Your task to perform on an android device: open app "Reddit" (install if not already installed) Image 0: 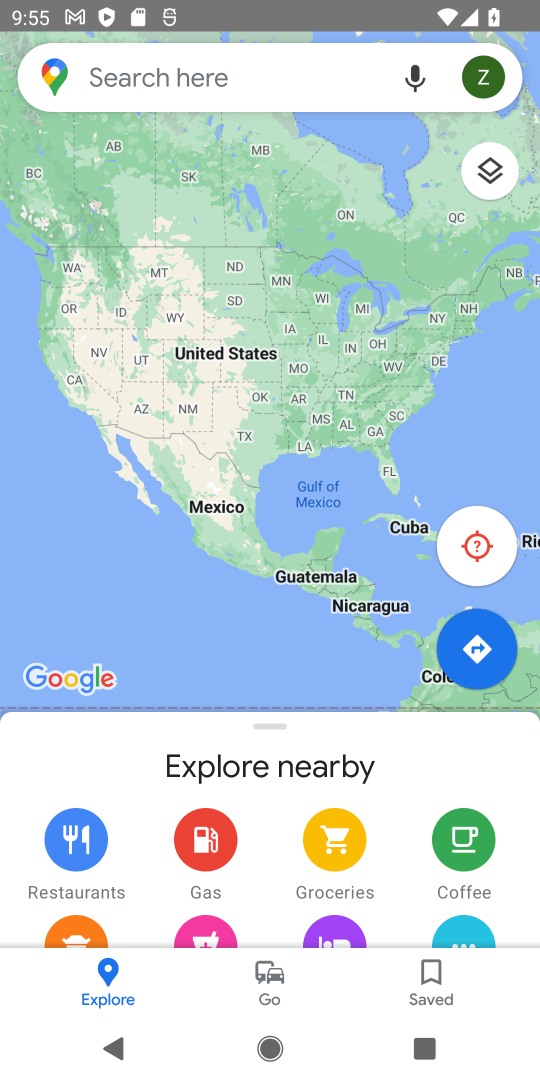
Step 0: press home button
Your task to perform on an android device: open app "Reddit" (install if not already installed) Image 1: 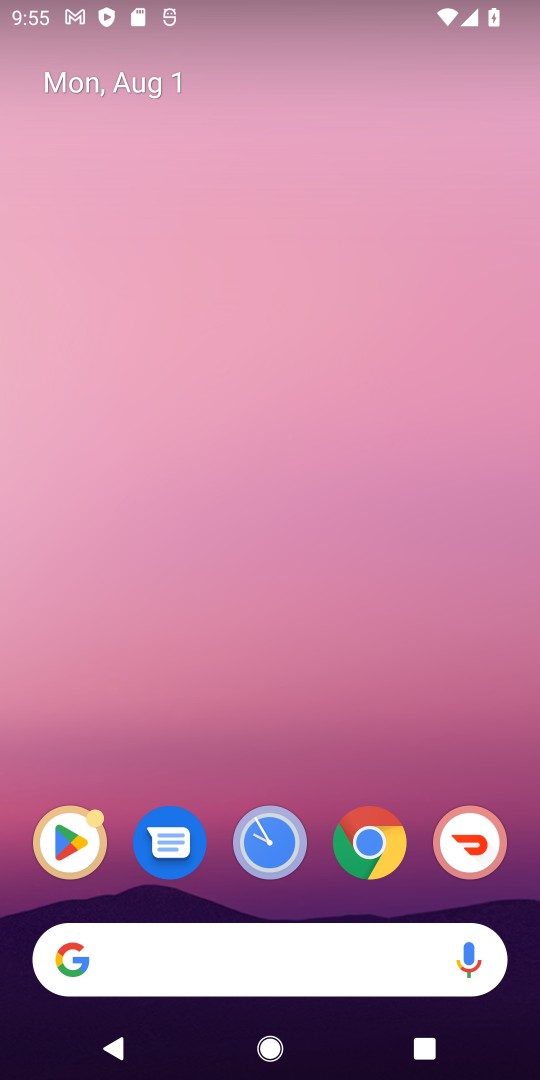
Step 1: click (46, 867)
Your task to perform on an android device: open app "Reddit" (install if not already installed) Image 2: 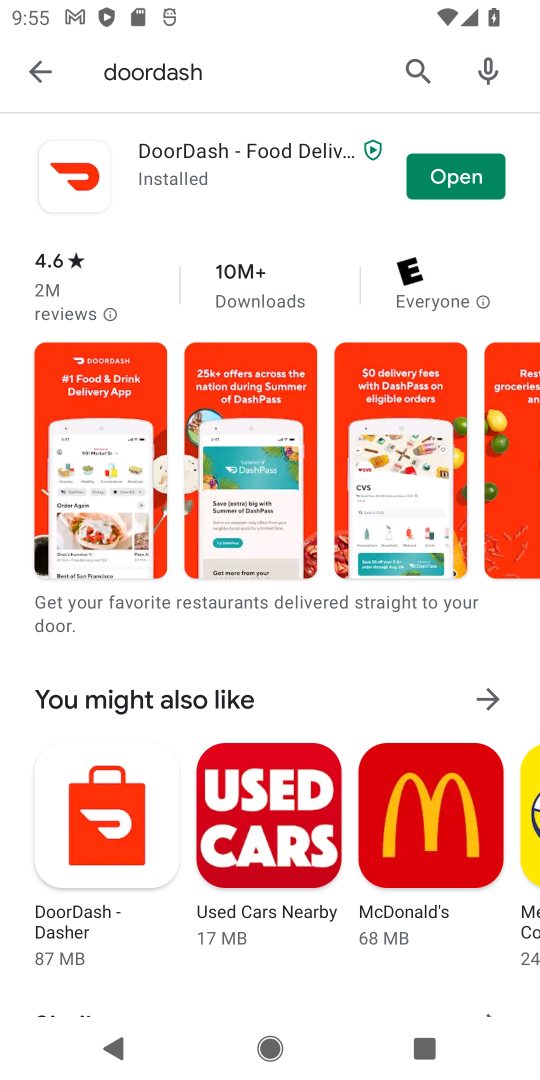
Step 2: click (418, 63)
Your task to perform on an android device: open app "Reddit" (install if not already installed) Image 3: 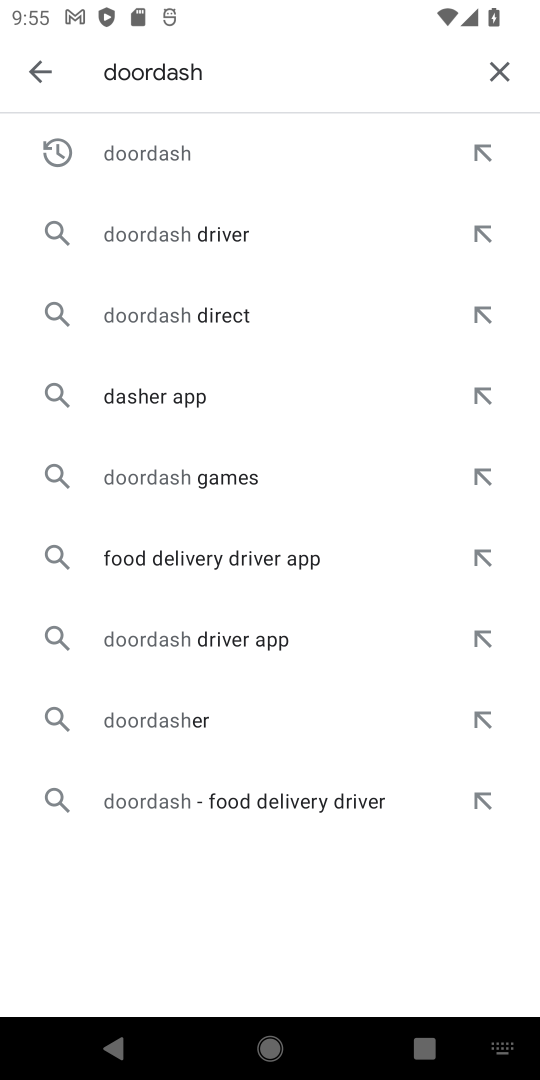
Step 3: click (497, 85)
Your task to perform on an android device: open app "Reddit" (install if not already installed) Image 4: 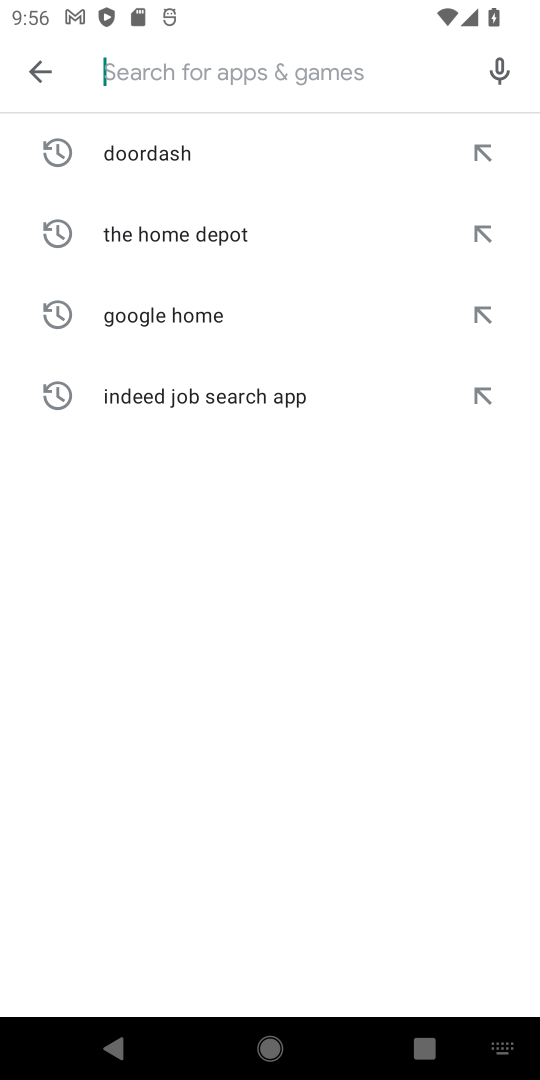
Step 4: click (248, 86)
Your task to perform on an android device: open app "Reddit" (install if not already installed) Image 5: 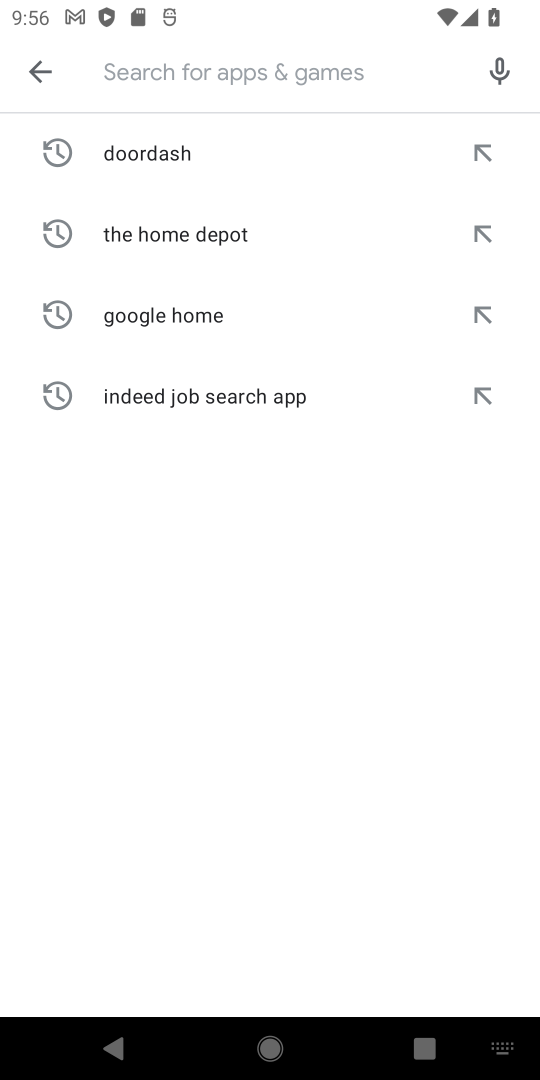
Step 5: type "reddit"
Your task to perform on an android device: open app "Reddit" (install if not already installed) Image 6: 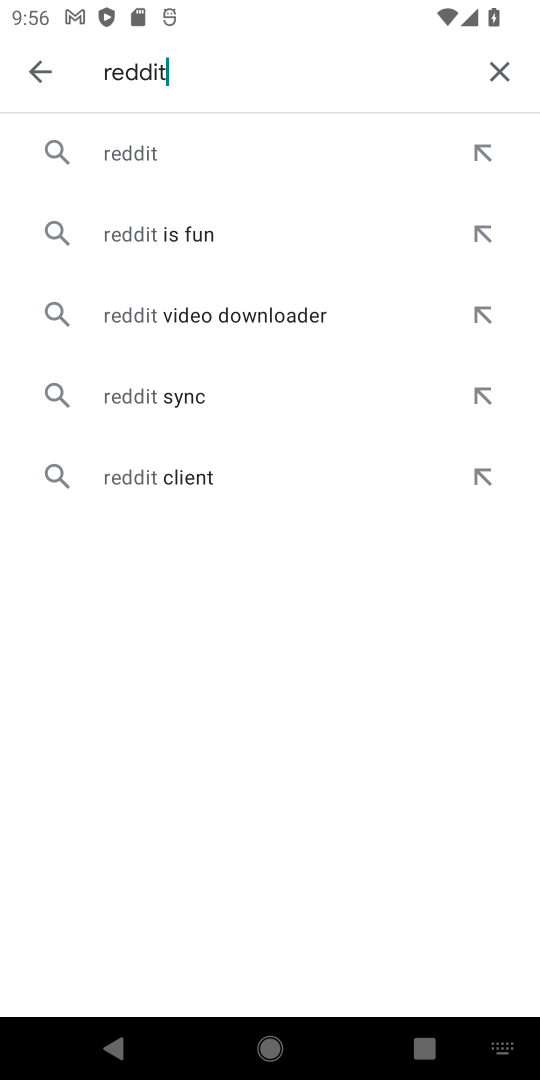
Step 6: click (185, 150)
Your task to perform on an android device: open app "Reddit" (install if not already installed) Image 7: 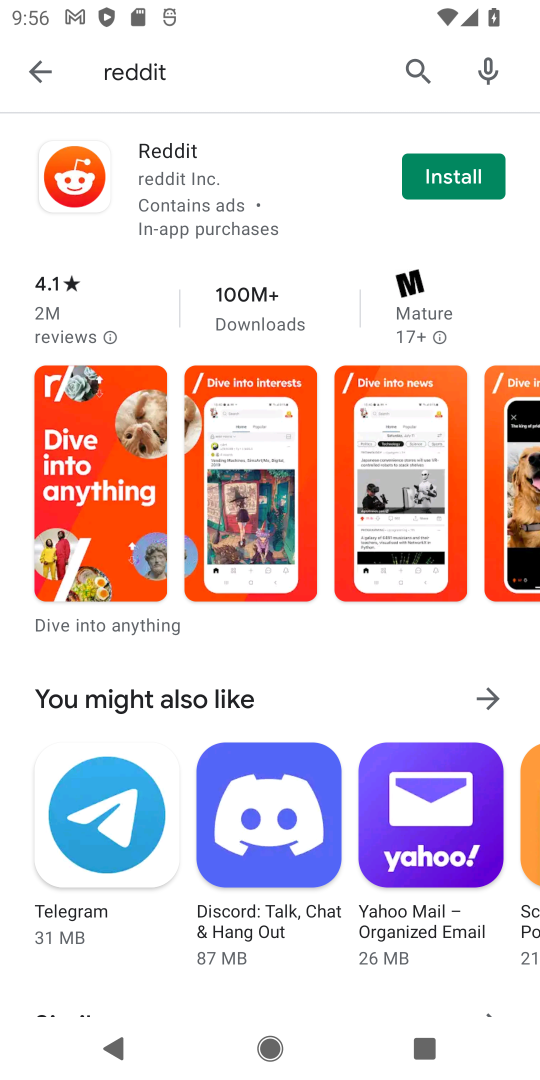
Step 7: click (441, 173)
Your task to perform on an android device: open app "Reddit" (install if not already installed) Image 8: 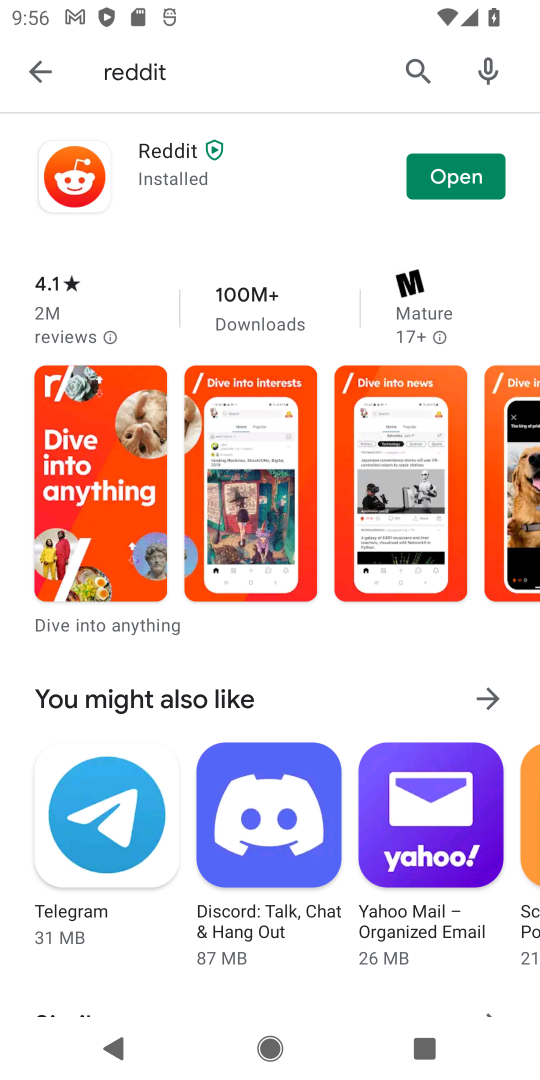
Step 8: click (450, 176)
Your task to perform on an android device: open app "Reddit" (install if not already installed) Image 9: 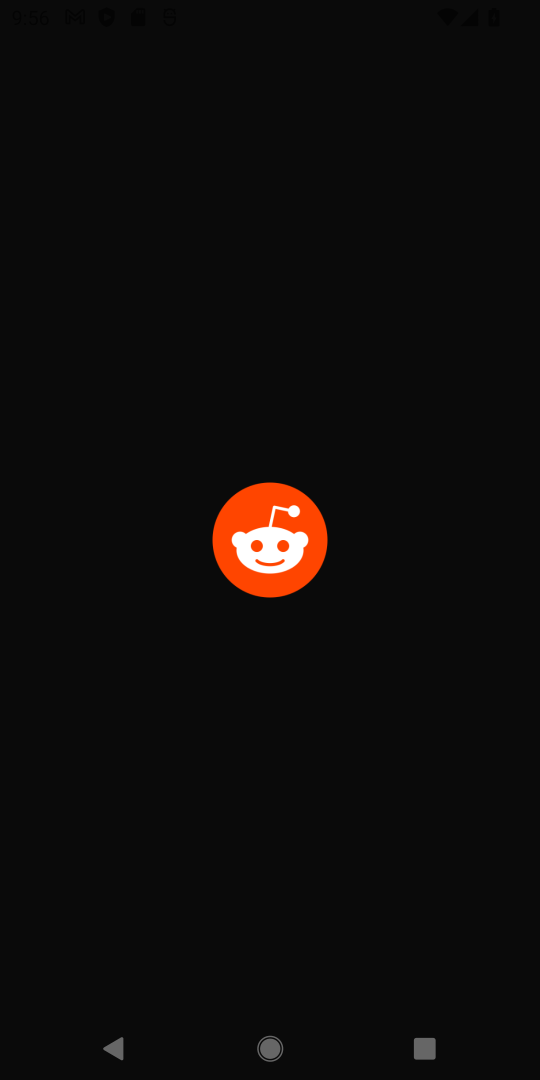
Step 9: task complete